Your task to perform on an android device: set default search engine in the chrome app Image 0: 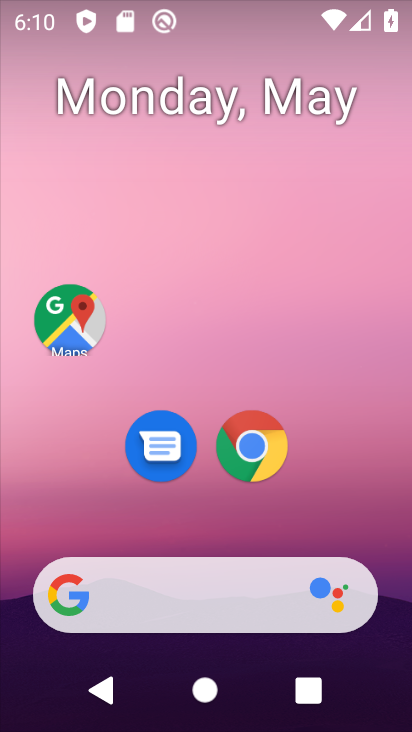
Step 0: click (258, 446)
Your task to perform on an android device: set default search engine in the chrome app Image 1: 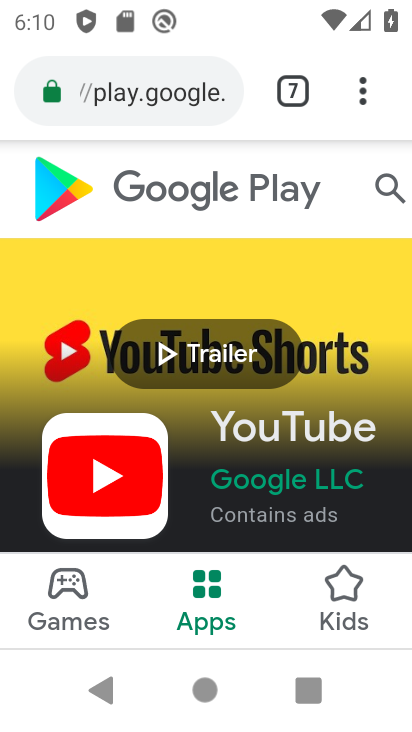
Step 1: click (356, 87)
Your task to perform on an android device: set default search engine in the chrome app Image 2: 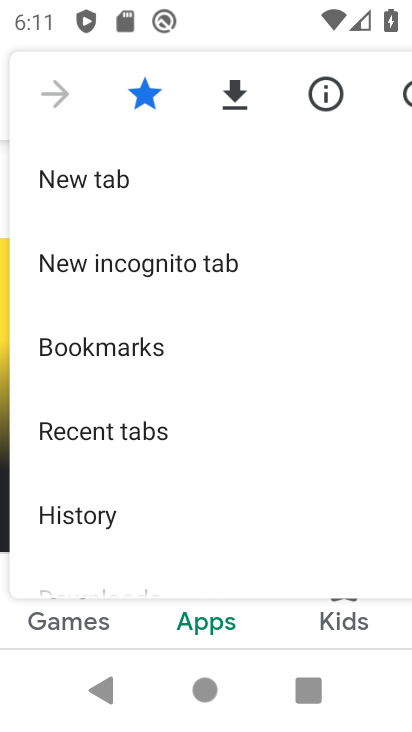
Step 2: drag from (174, 506) to (151, 169)
Your task to perform on an android device: set default search engine in the chrome app Image 3: 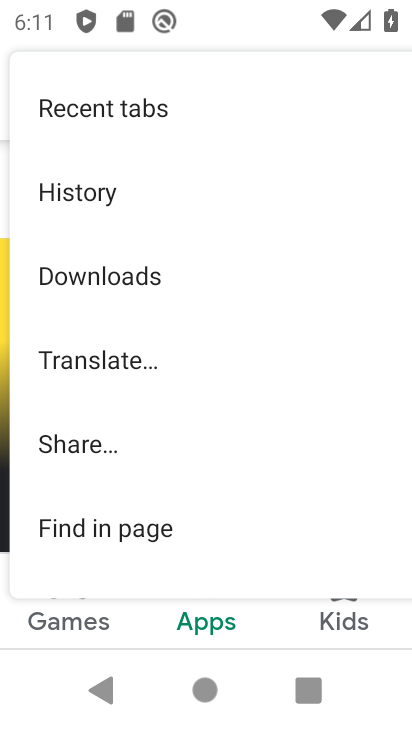
Step 3: drag from (186, 424) to (212, 127)
Your task to perform on an android device: set default search engine in the chrome app Image 4: 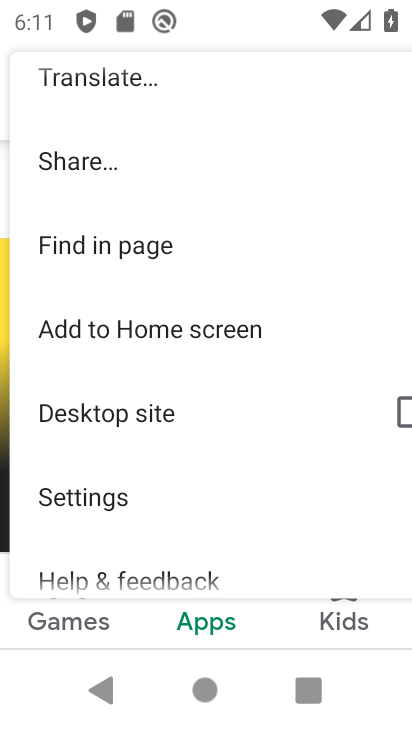
Step 4: click (87, 501)
Your task to perform on an android device: set default search engine in the chrome app Image 5: 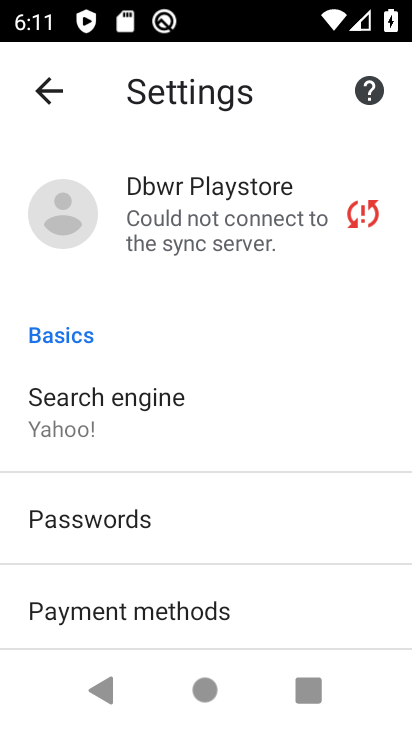
Step 5: click (76, 396)
Your task to perform on an android device: set default search engine in the chrome app Image 6: 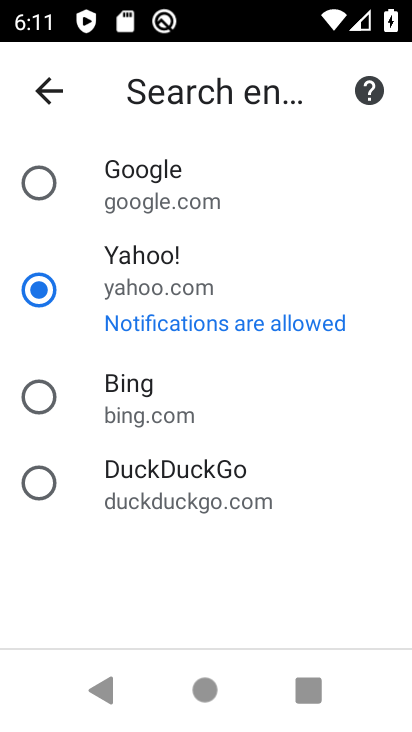
Step 6: click (37, 179)
Your task to perform on an android device: set default search engine in the chrome app Image 7: 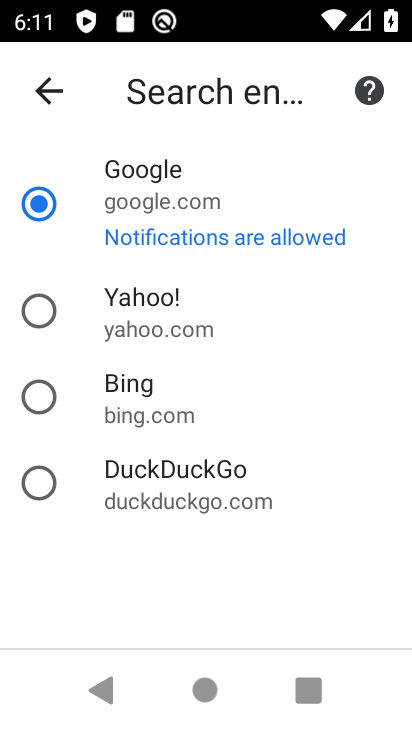
Step 7: task complete